Your task to perform on an android device: Open calendar and show me the second week of next month Image 0: 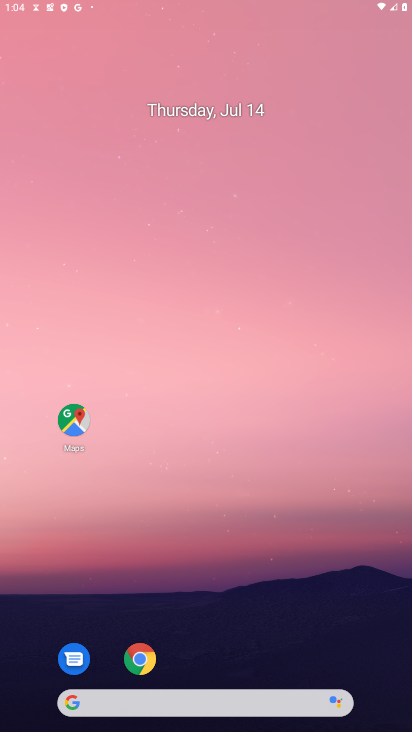
Step 0: click (73, 411)
Your task to perform on an android device: Open calendar and show me the second week of next month Image 1: 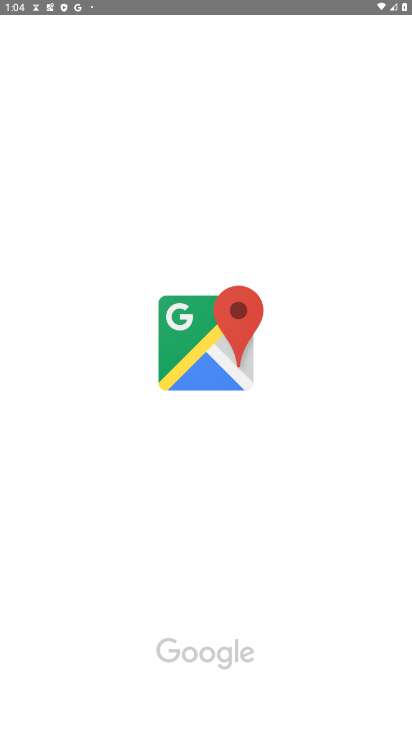
Step 1: press home button
Your task to perform on an android device: Open calendar and show me the second week of next month Image 2: 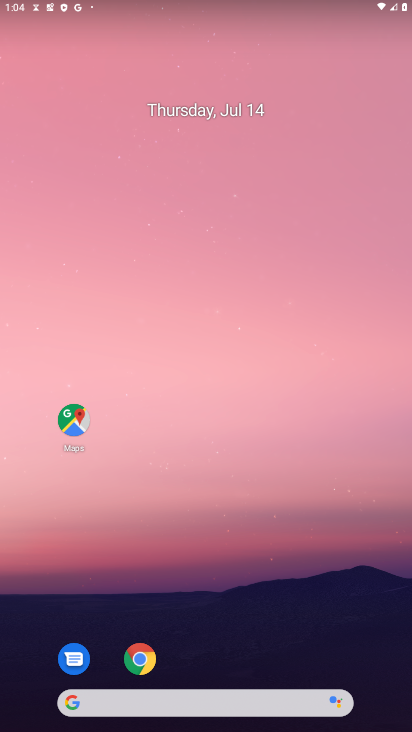
Step 2: drag from (42, 666) to (234, 173)
Your task to perform on an android device: Open calendar and show me the second week of next month Image 3: 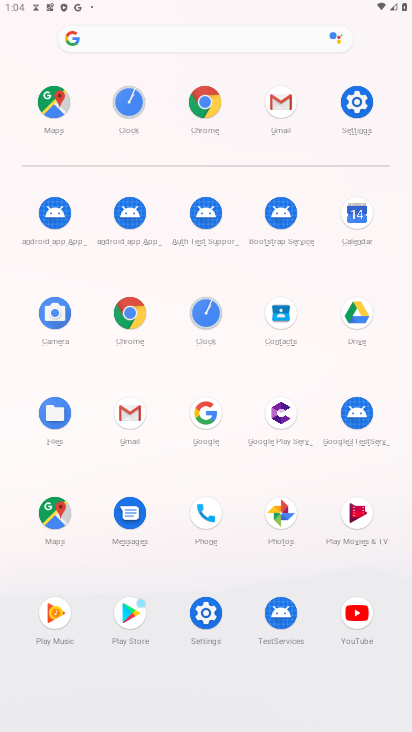
Step 3: click (368, 196)
Your task to perform on an android device: Open calendar and show me the second week of next month Image 4: 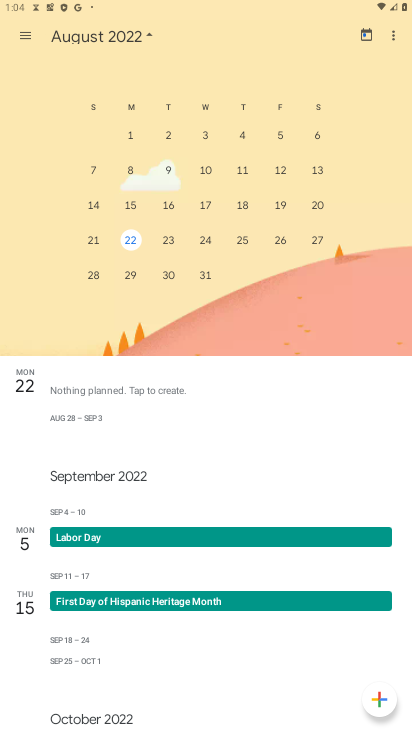
Step 4: click (126, 167)
Your task to perform on an android device: Open calendar and show me the second week of next month Image 5: 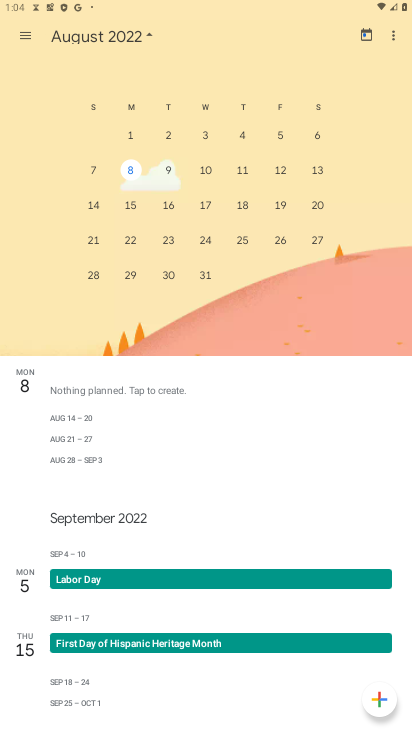
Step 5: task complete